Your task to perform on an android device: create a new album in the google photos Image 0: 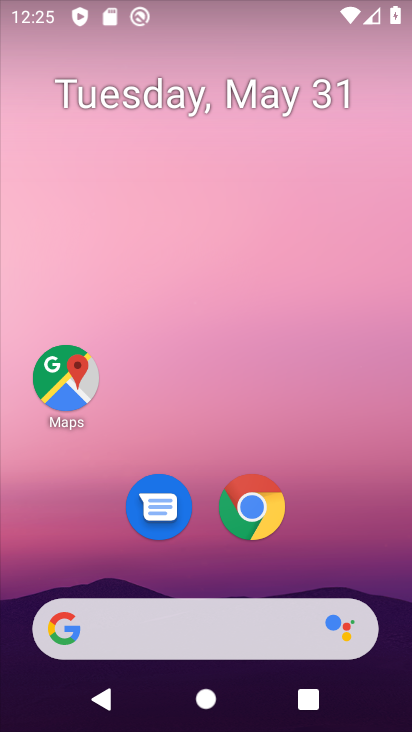
Step 0: drag from (357, 561) to (285, 4)
Your task to perform on an android device: create a new album in the google photos Image 1: 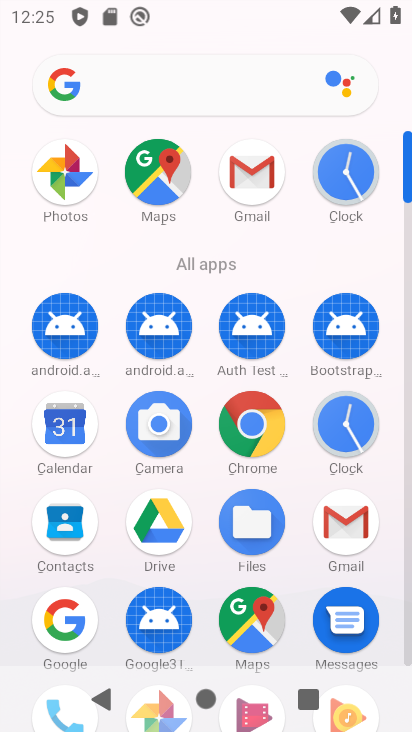
Step 1: click (407, 627)
Your task to perform on an android device: create a new album in the google photos Image 2: 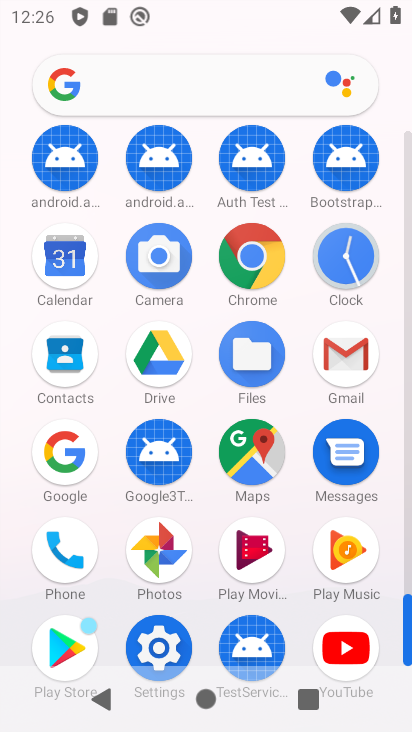
Step 2: click (169, 557)
Your task to perform on an android device: create a new album in the google photos Image 3: 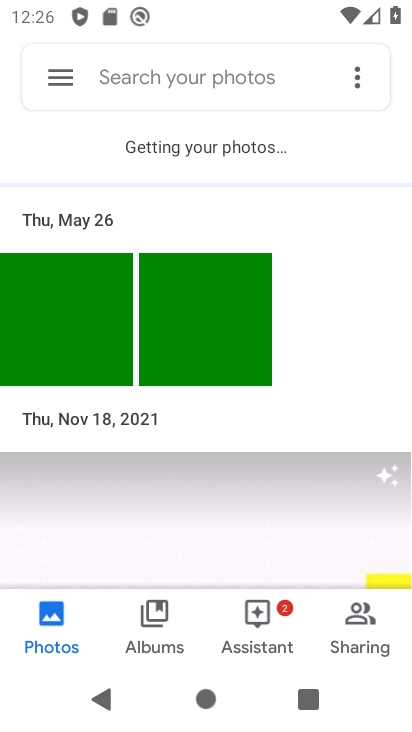
Step 3: click (196, 363)
Your task to perform on an android device: create a new album in the google photos Image 4: 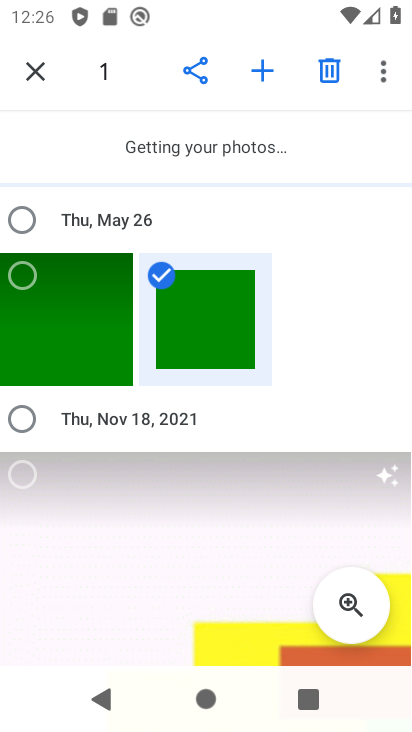
Step 4: click (80, 345)
Your task to perform on an android device: create a new album in the google photos Image 5: 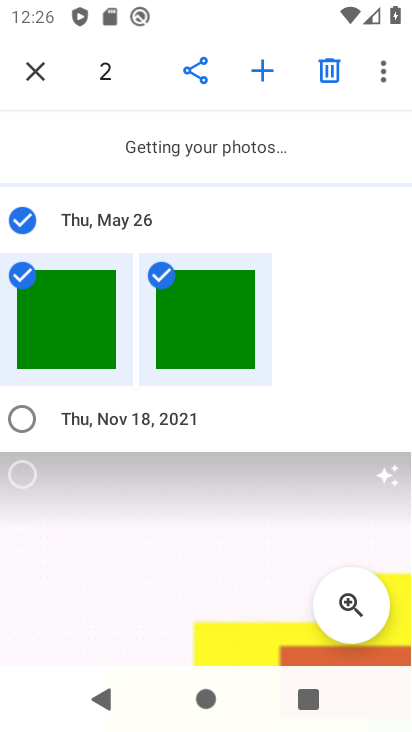
Step 5: click (255, 76)
Your task to perform on an android device: create a new album in the google photos Image 6: 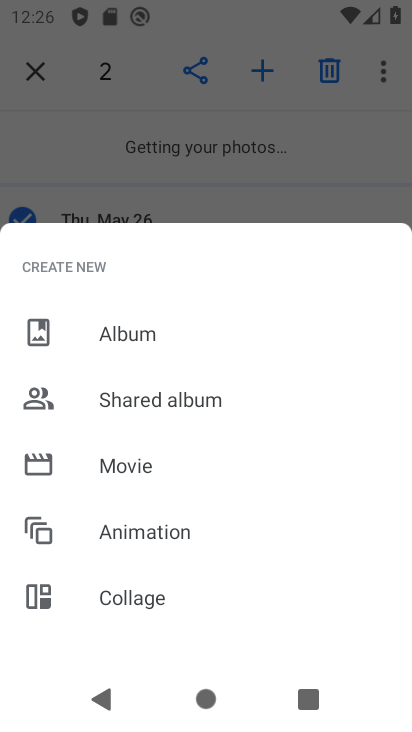
Step 6: click (59, 337)
Your task to perform on an android device: create a new album in the google photos Image 7: 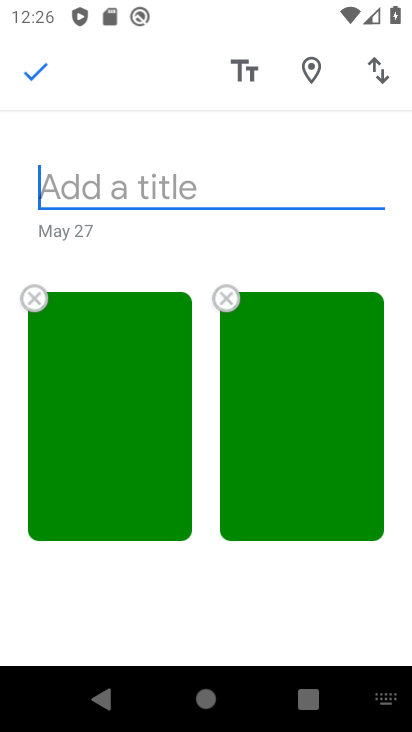
Step 7: type "jhg"
Your task to perform on an android device: create a new album in the google photos Image 8: 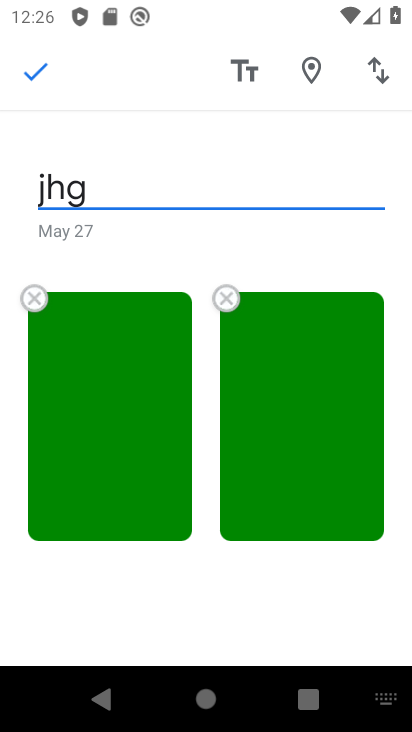
Step 8: click (35, 72)
Your task to perform on an android device: create a new album in the google photos Image 9: 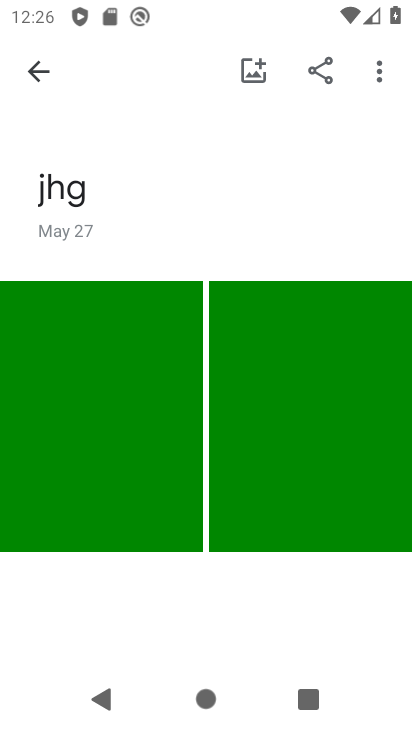
Step 9: task complete